Your task to perform on an android device: open app "Expedia: Hotels, Flights & Car" (install if not already installed) Image 0: 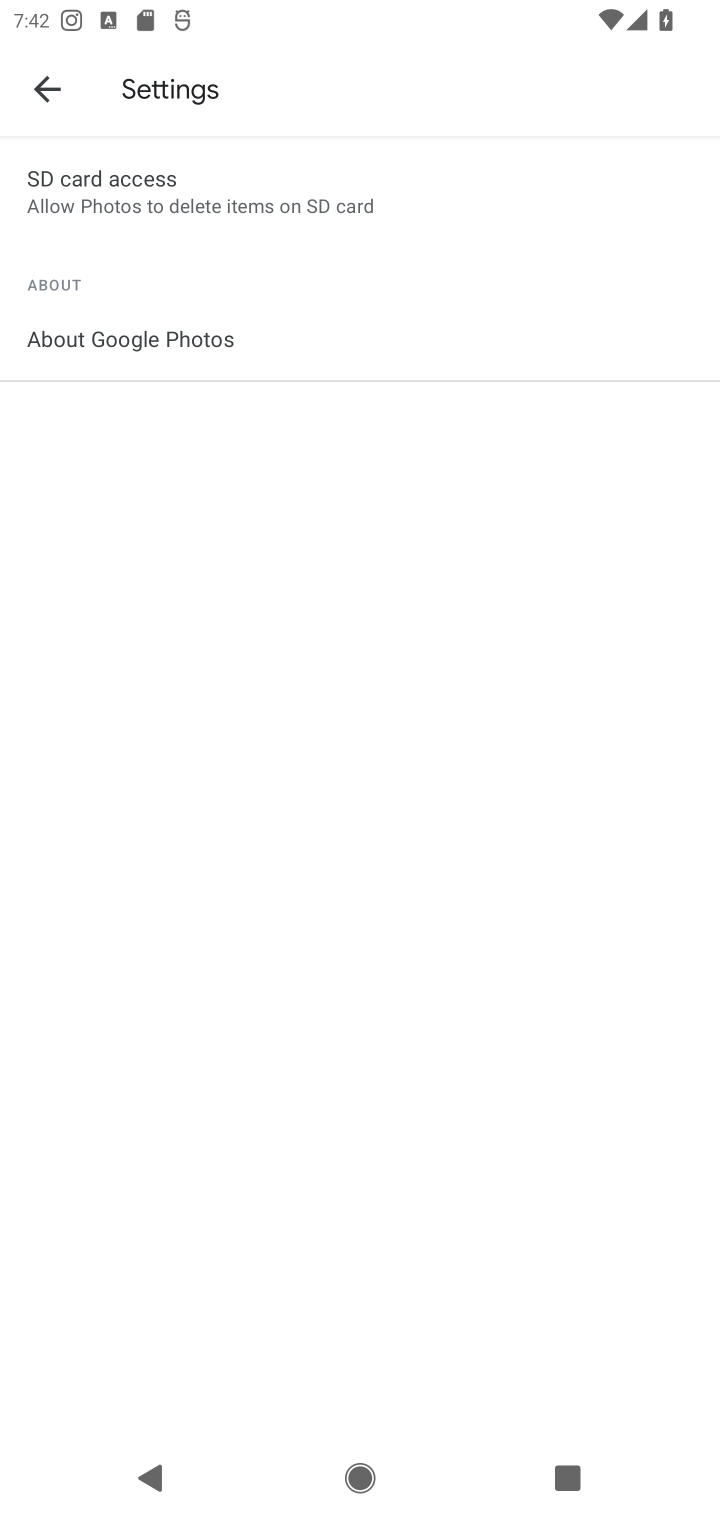
Step 0: press home button
Your task to perform on an android device: open app "Expedia: Hotels, Flights & Car" (install if not already installed) Image 1: 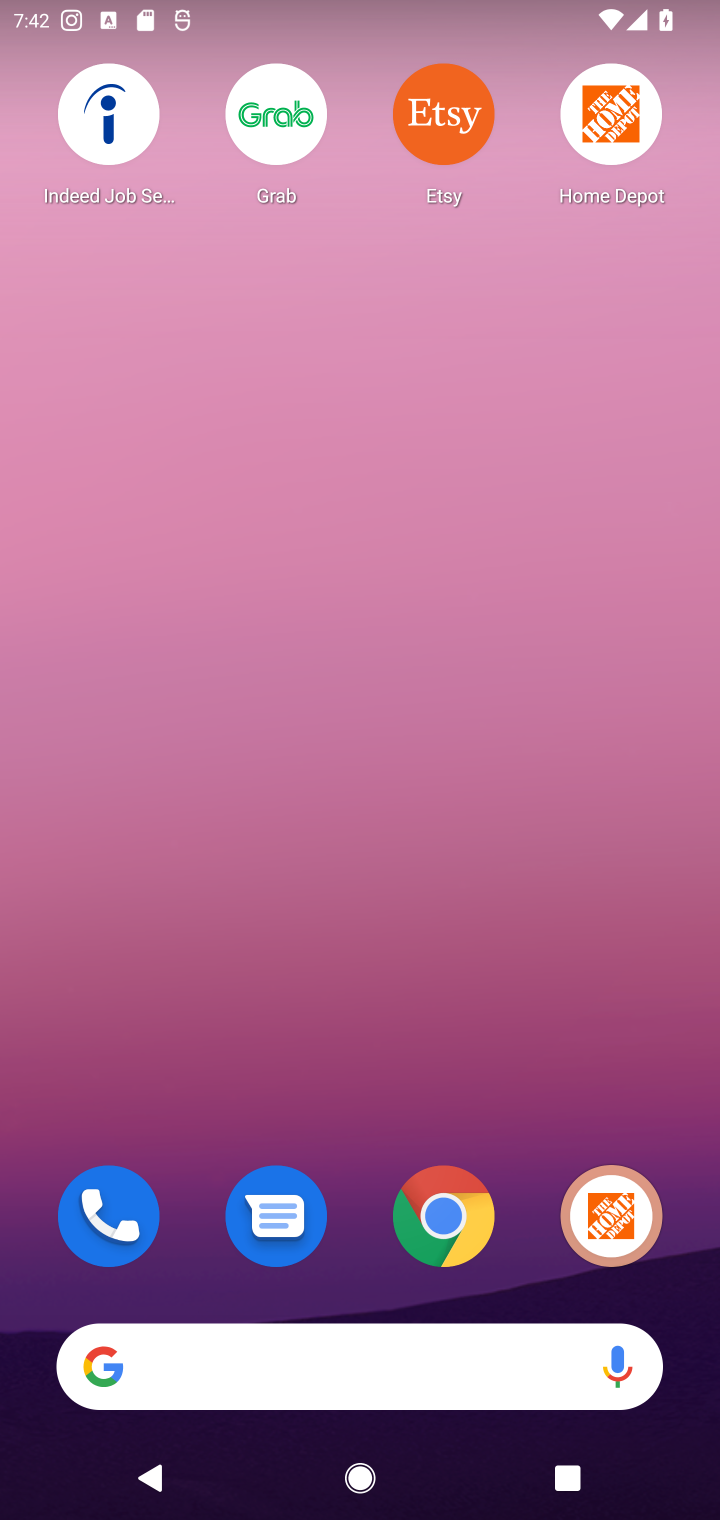
Step 1: drag from (441, 775) to (519, 171)
Your task to perform on an android device: open app "Expedia: Hotels, Flights & Car" (install if not already installed) Image 2: 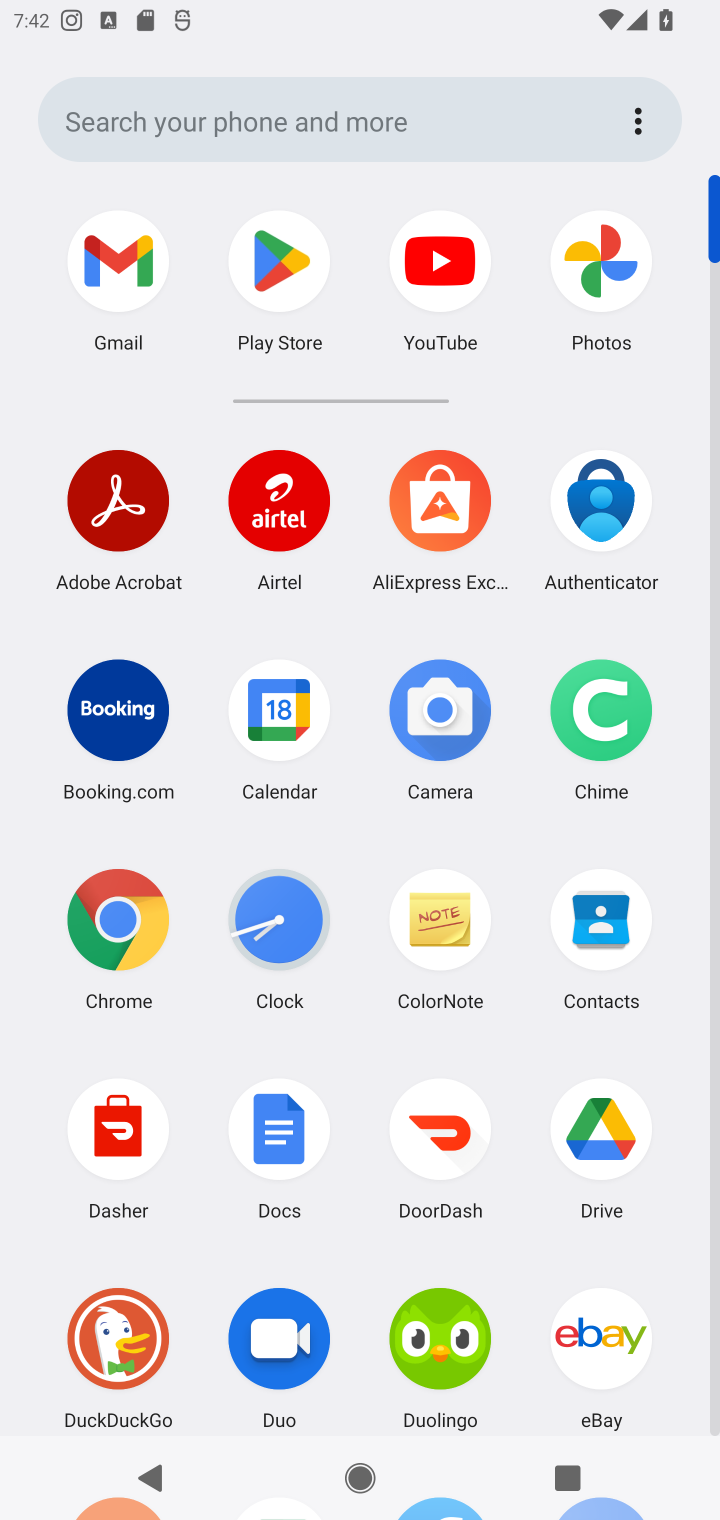
Step 2: click (268, 284)
Your task to perform on an android device: open app "Expedia: Hotels, Flights & Car" (install if not already installed) Image 3: 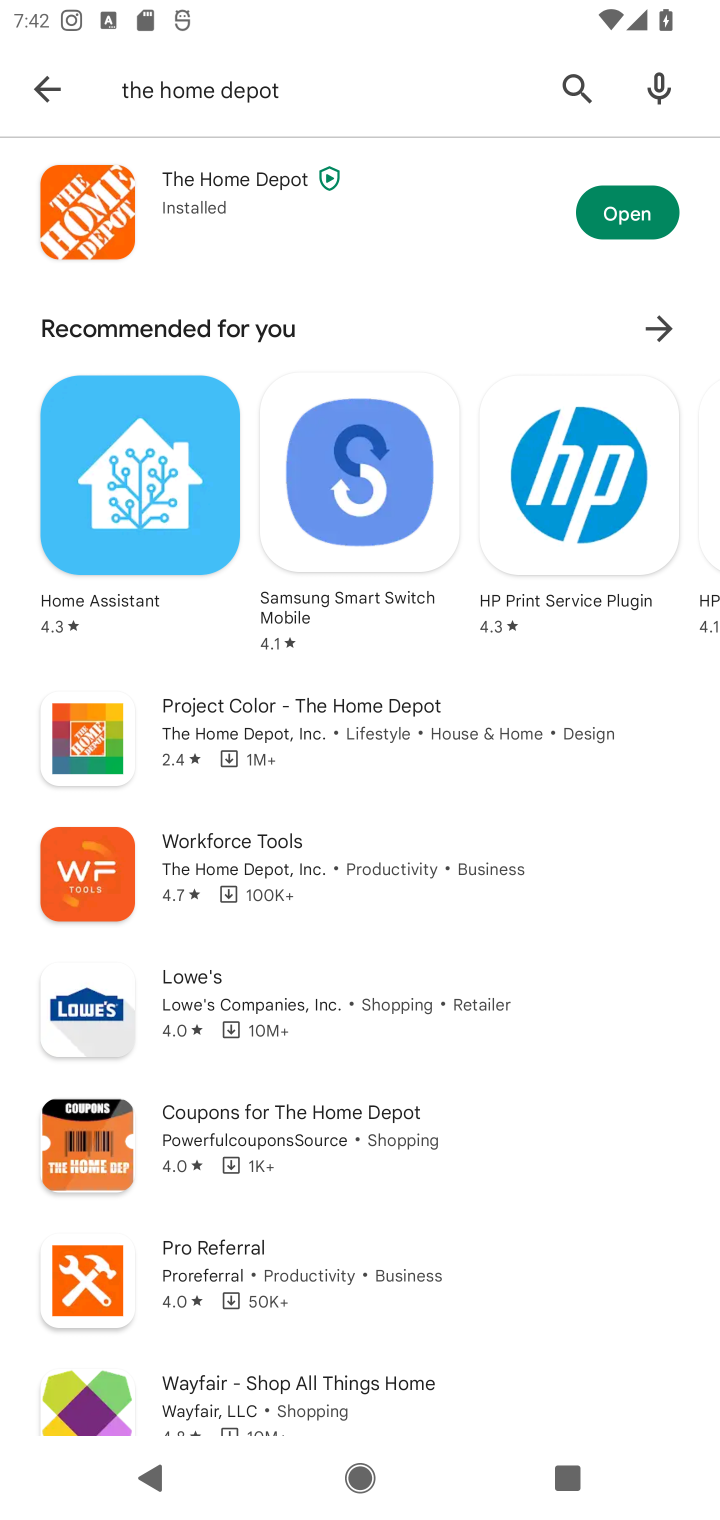
Step 3: click (586, 80)
Your task to perform on an android device: open app "Expedia: Hotels, Flights & Car" (install if not already installed) Image 4: 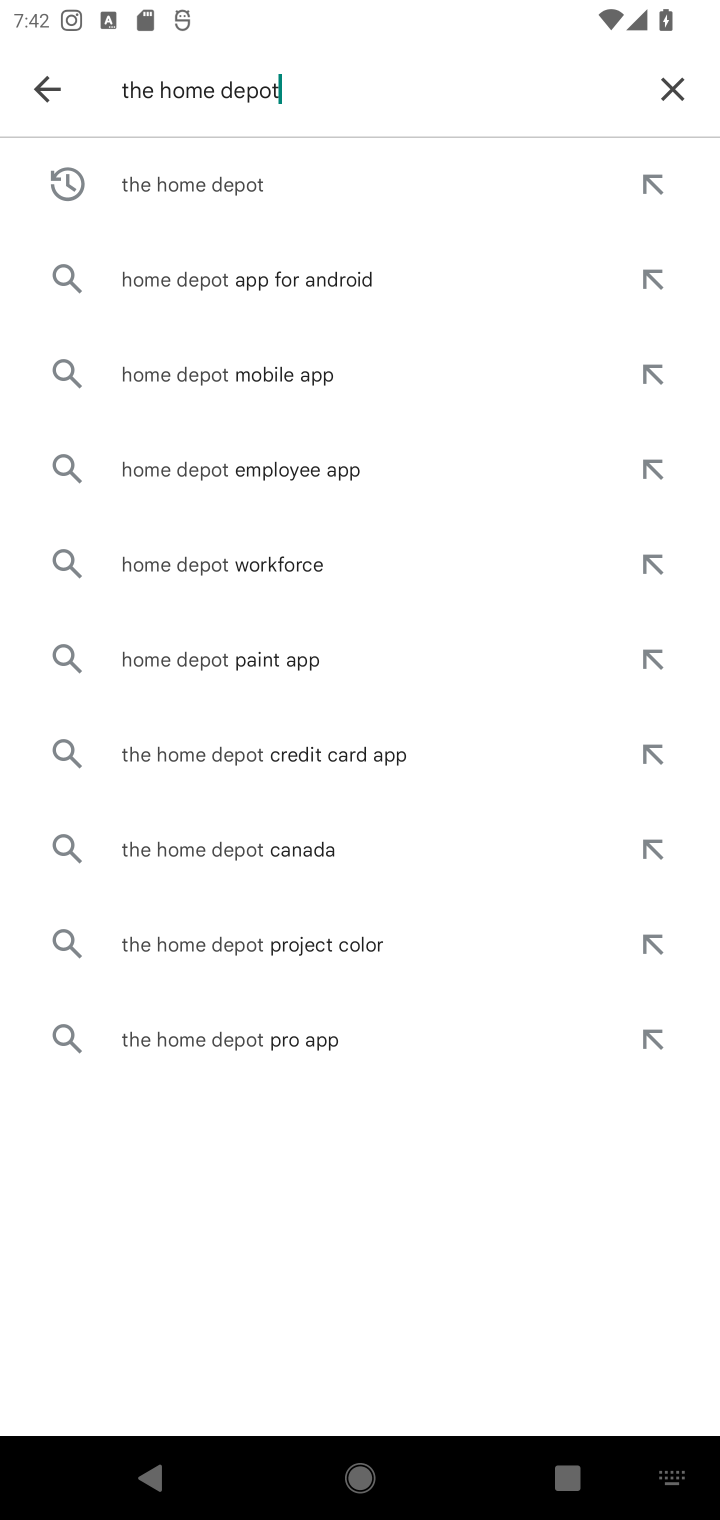
Step 4: click (673, 85)
Your task to perform on an android device: open app "Expedia: Hotels, Flights & Car" (install if not already installed) Image 5: 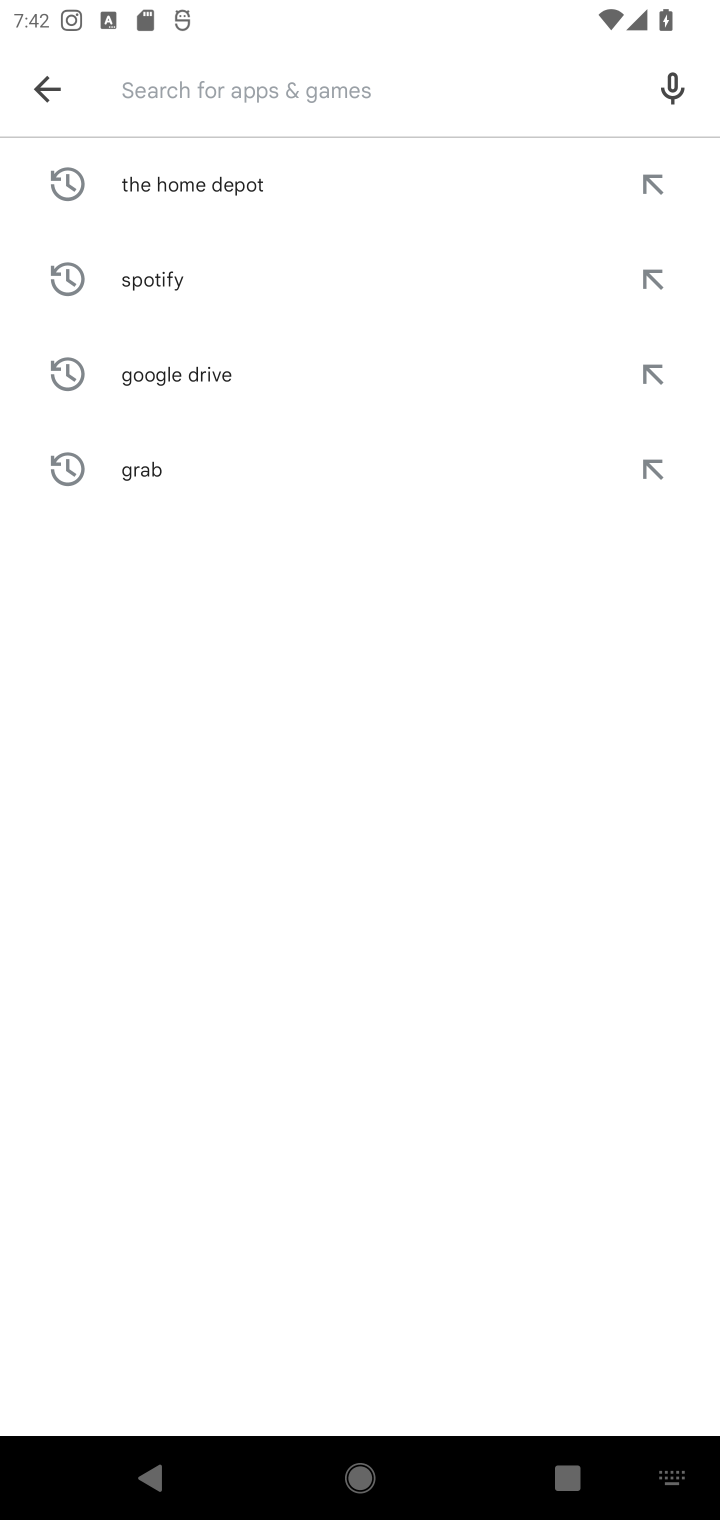
Step 5: type "Expedia: Hotels, Flights & Car"
Your task to perform on an android device: open app "Expedia: Hotels, Flights & Car" (install if not already installed) Image 6: 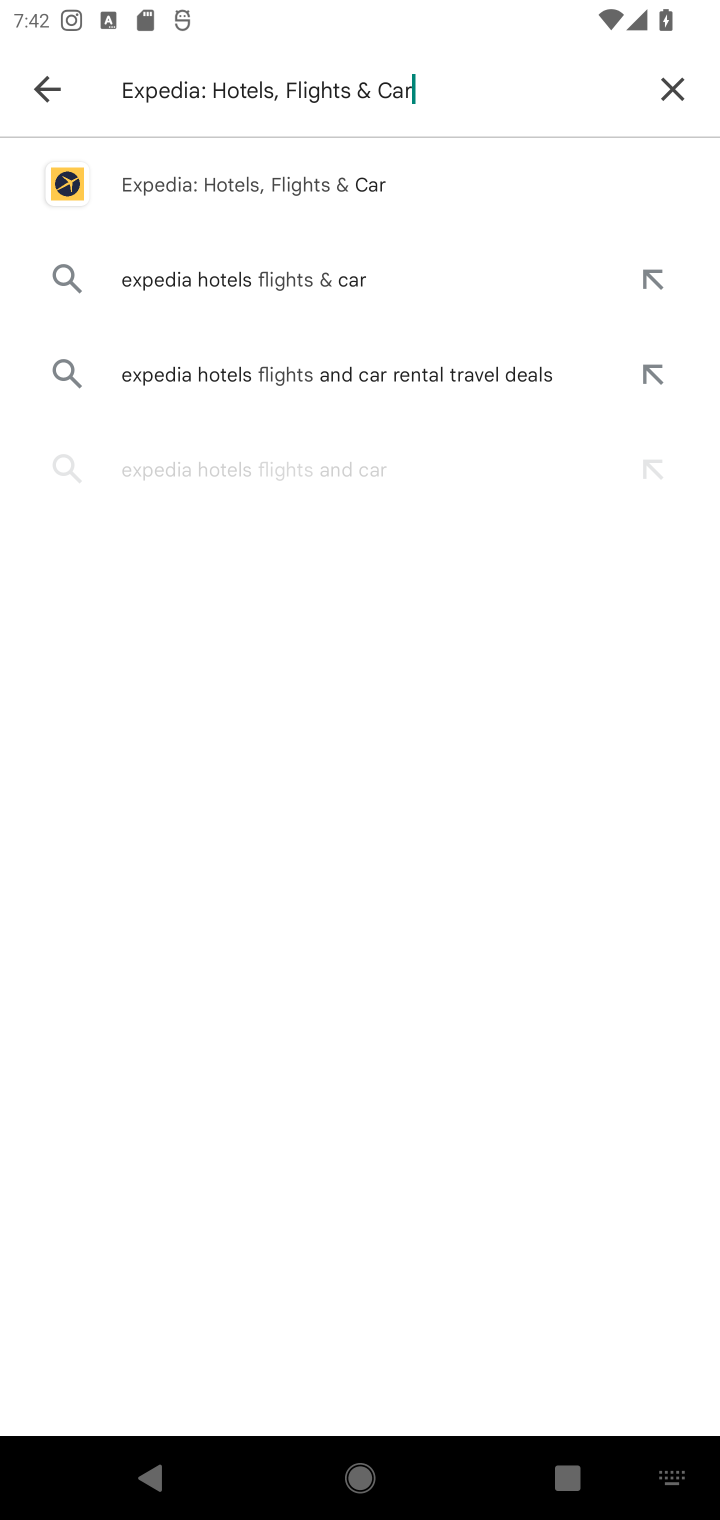
Step 6: type ""
Your task to perform on an android device: open app "Expedia: Hotels, Flights & Car" (install if not already installed) Image 7: 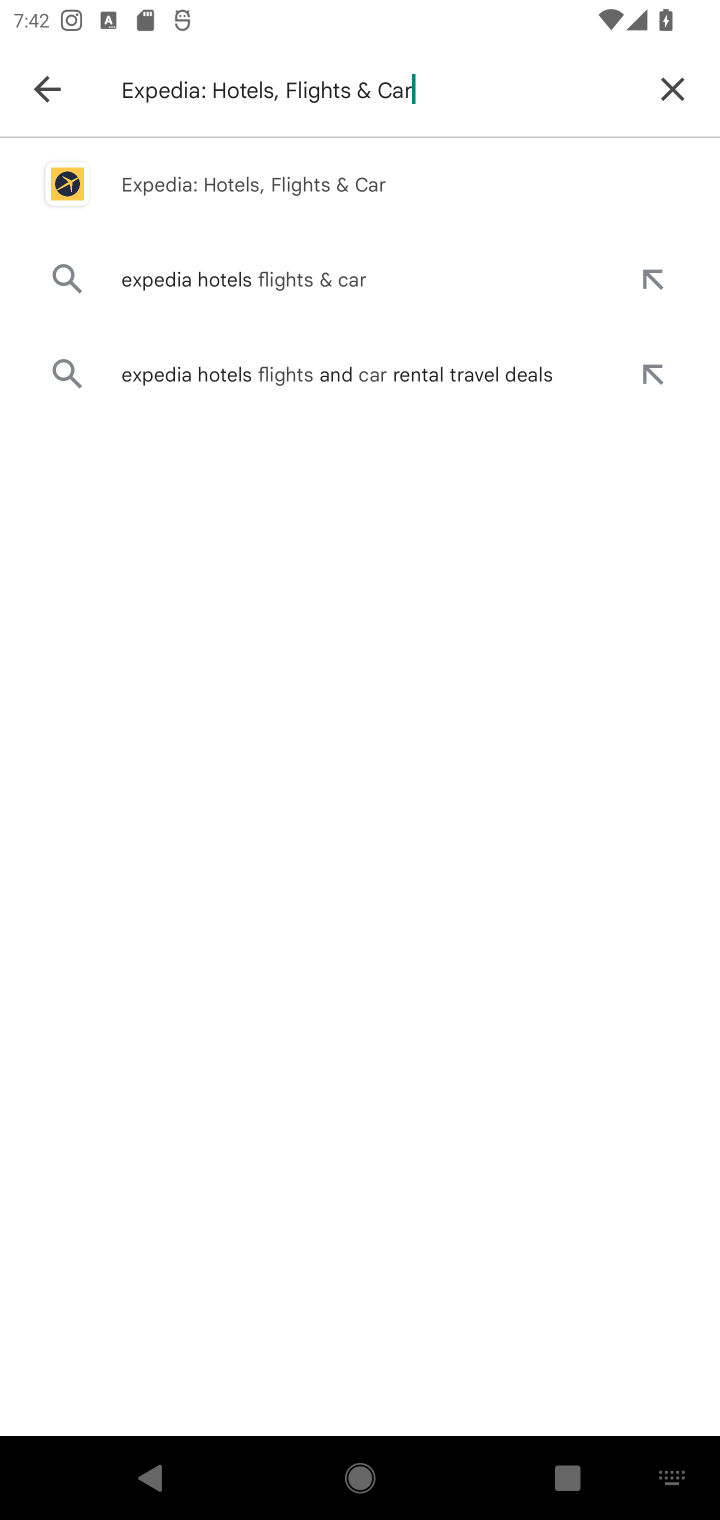
Step 7: click (264, 205)
Your task to perform on an android device: open app "Expedia: Hotels, Flights & Car" (install if not already installed) Image 8: 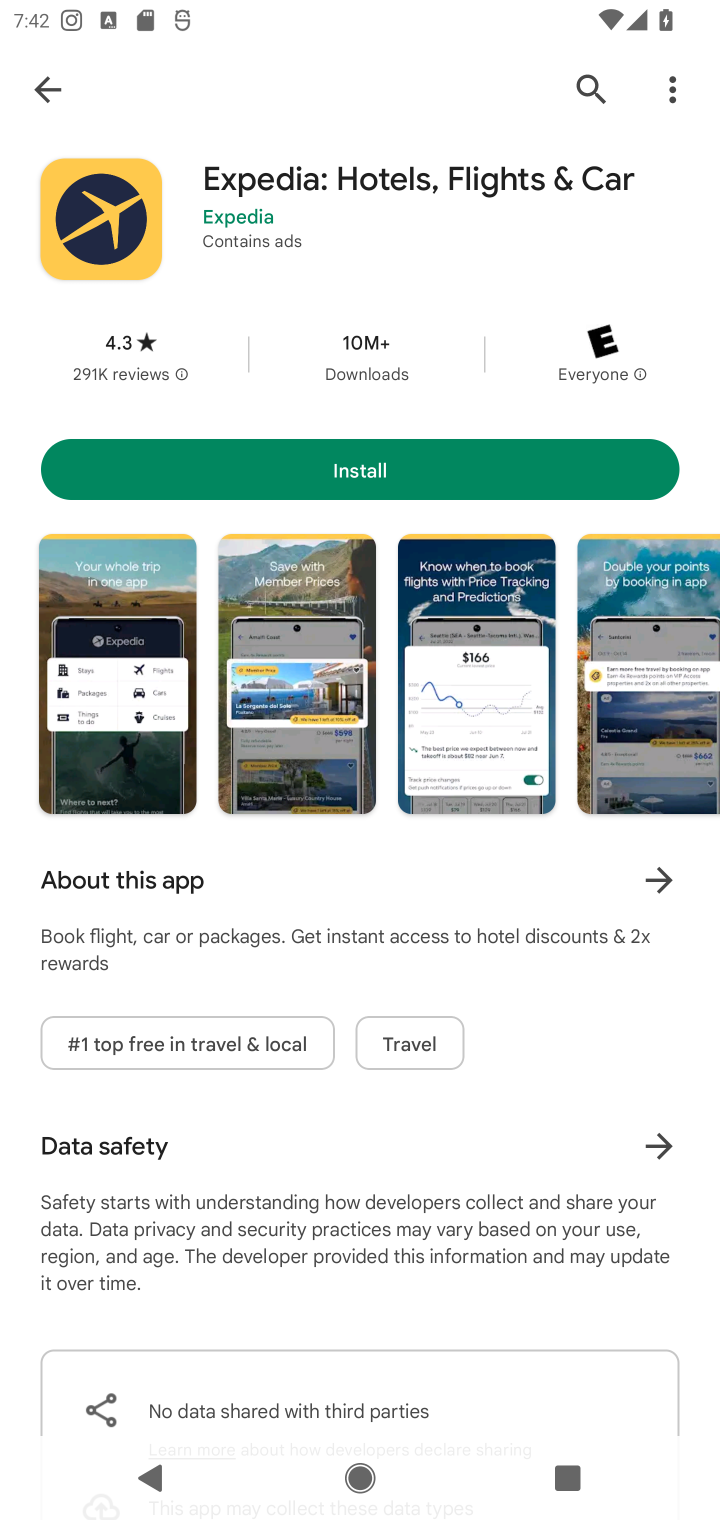
Step 8: click (426, 459)
Your task to perform on an android device: open app "Expedia: Hotels, Flights & Car" (install if not already installed) Image 9: 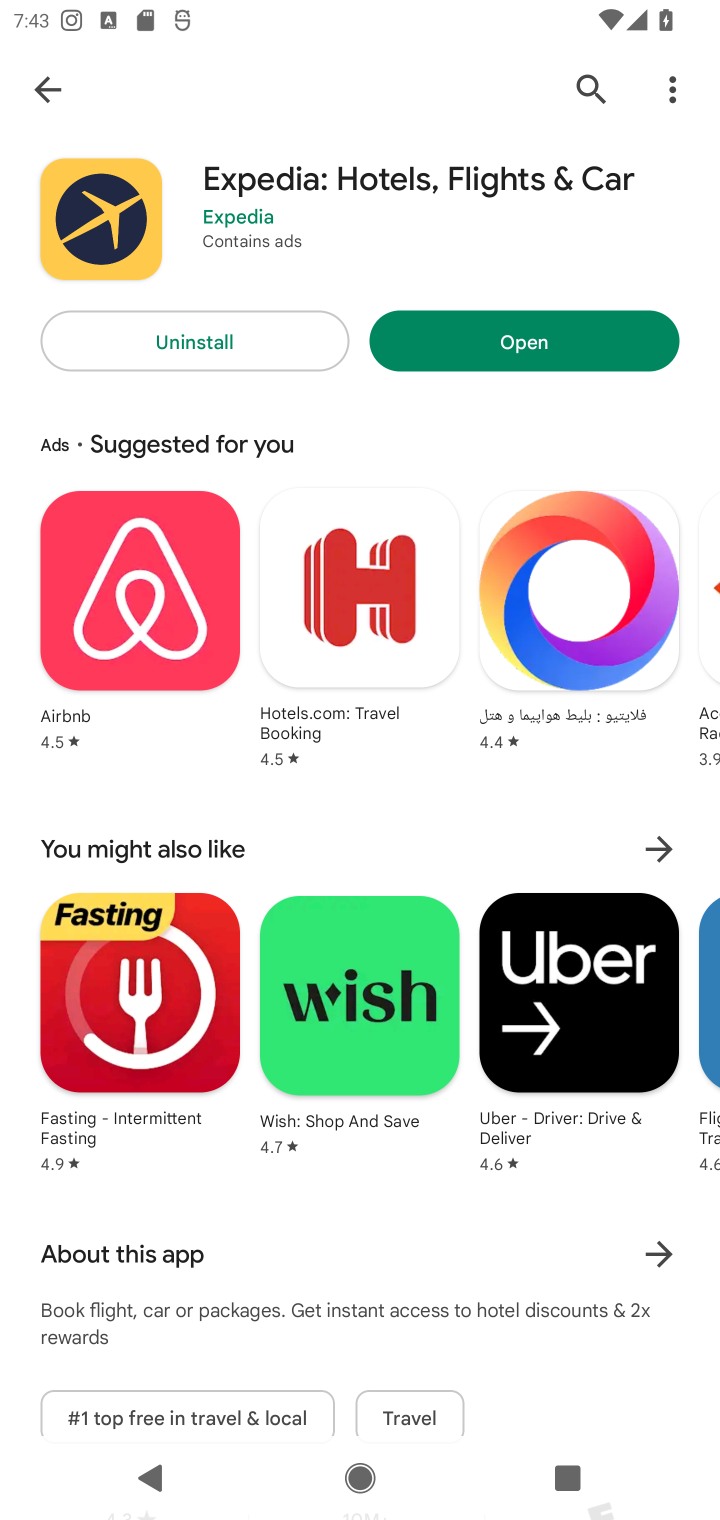
Step 9: click (517, 339)
Your task to perform on an android device: open app "Expedia: Hotels, Flights & Car" (install if not already installed) Image 10: 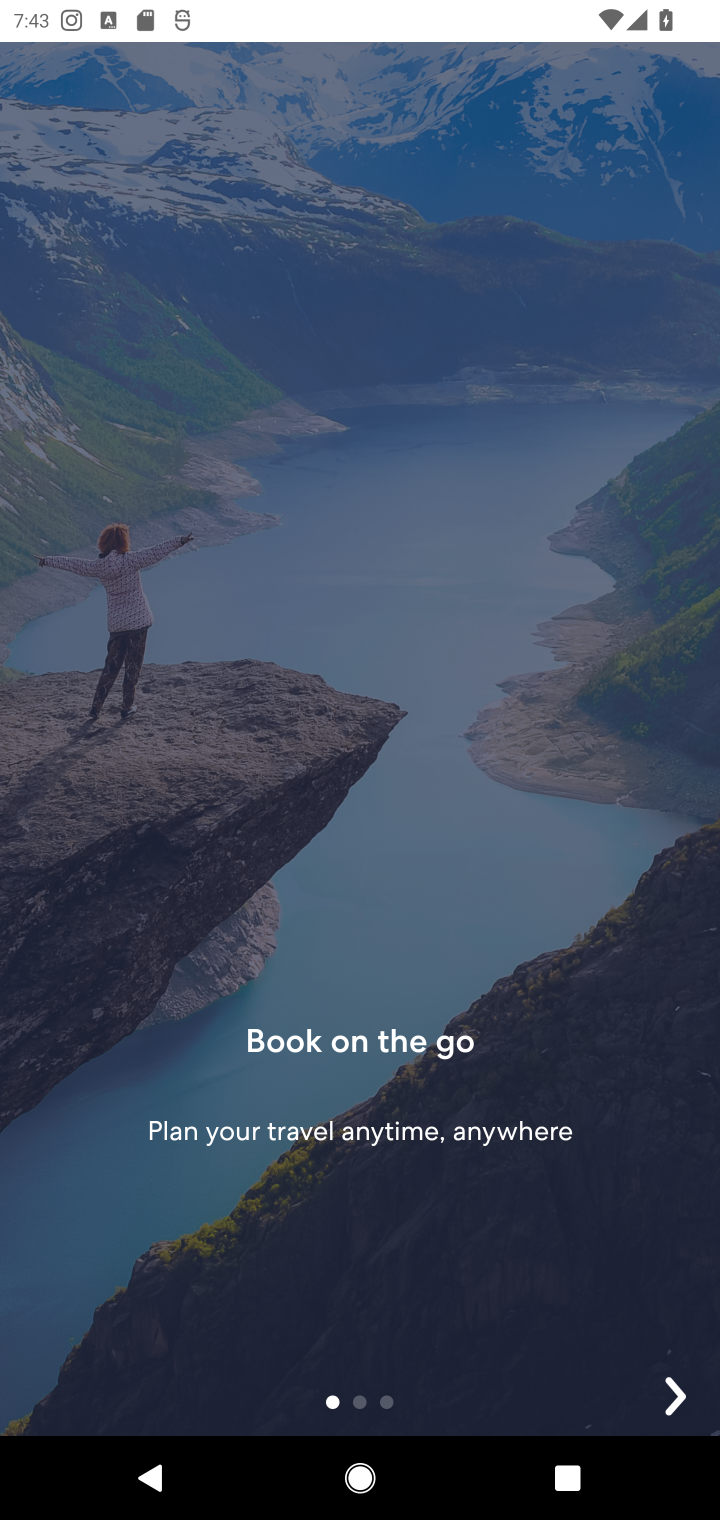
Step 10: task complete